Your task to perform on an android device: Open the calendar app, open the side menu, and click the "Day" option Image 0: 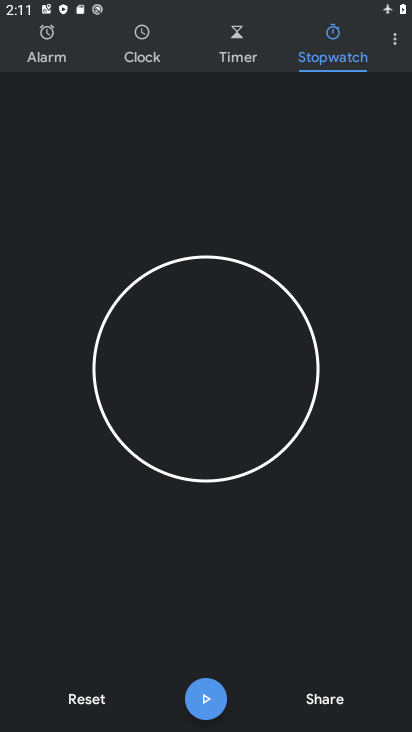
Step 0: press home button
Your task to perform on an android device: Open the calendar app, open the side menu, and click the "Day" option Image 1: 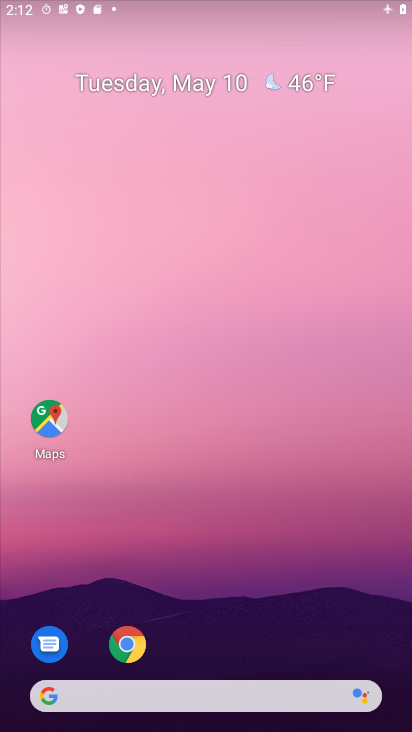
Step 1: drag from (282, 638) to (269, 220)
Your task to perform on an android device: Open the calendar app, open the side menu, and click the "Day" option Image 2: 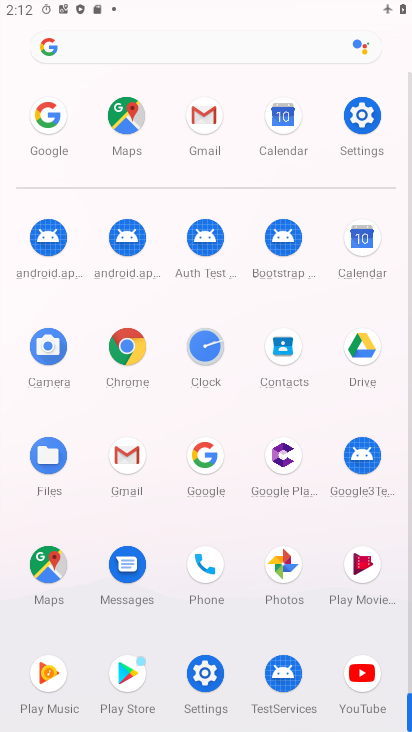
Step 2: click (363, 249)
Your task to perform on an android device: Open the calendar app, open the side menu, and click the "Day" option Image 3: 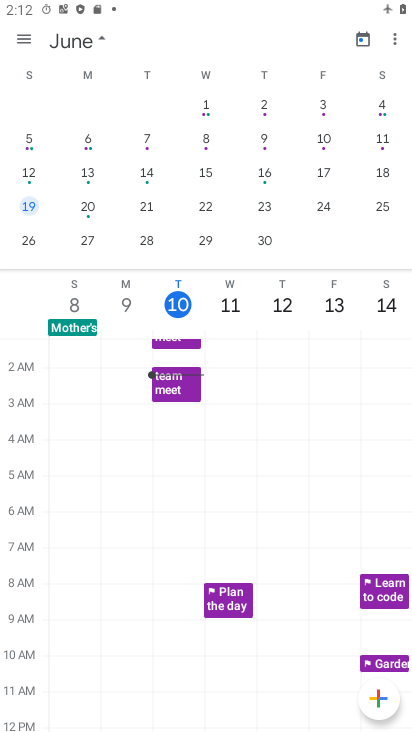
Step 3: click (19, 46)
Your task to perform on an android device: Open the calendar app, open the side menu, and click the "Day" option Image 4: 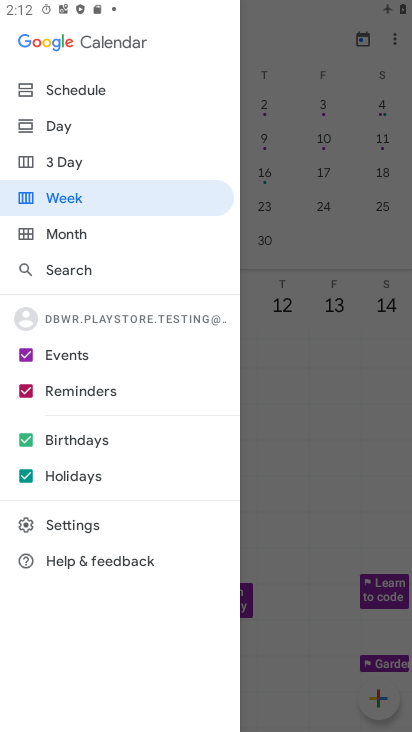
Step 4: click (80, 122)
Your task to perform on an android device: Open the calendar app, open the side menu, and click the "Day" option Image 5: 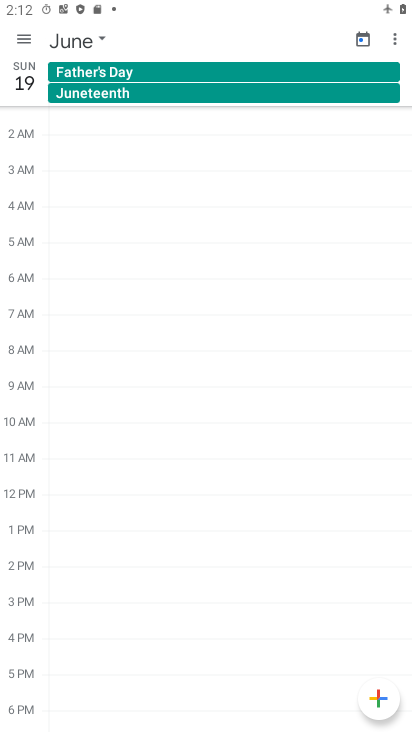
Step 5: task complete